Your task to perform on an android device: turn off notifications in google photos Image 0: 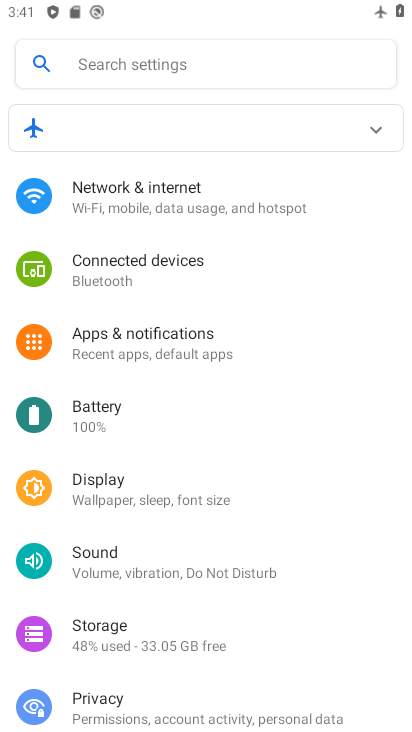
Step 0: press home button
Your task to perform on an android device: turn off notifications in google photos Image 1: 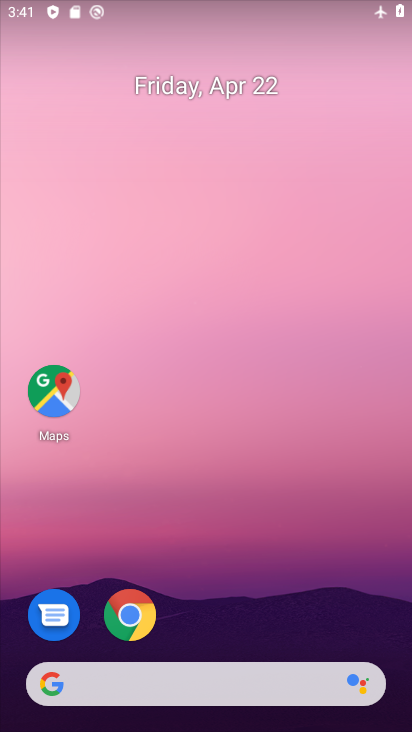
Step 1: drag from (245, 615) to (325, 329)
Your task to perform on an android device: turn off notifications in google photos Image 2: 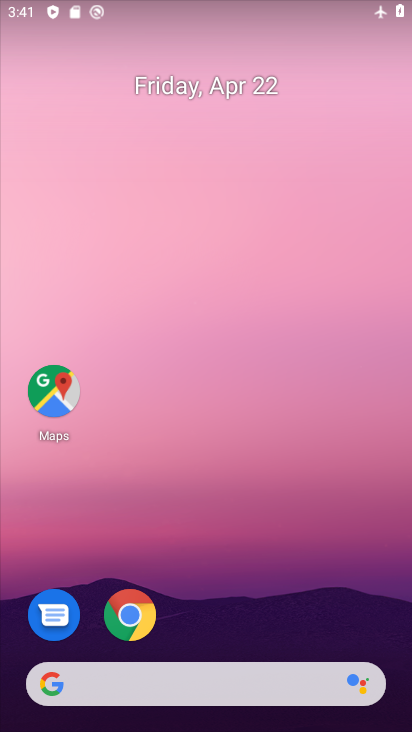
Step 2: drag from (271, 521) to (303, 314)
Your task to perform on an android device: turn off notifications in google photos Image 3: 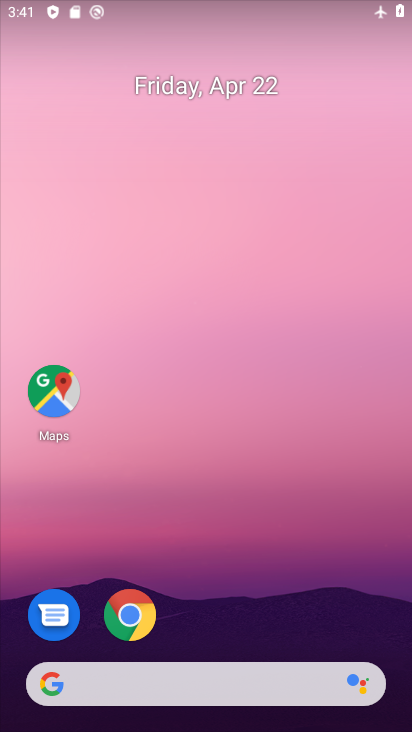
Step 3: drag from (186, 622) to (303, 155)
Your task to perform on an android device: turn off notifications in google photos Image 4: 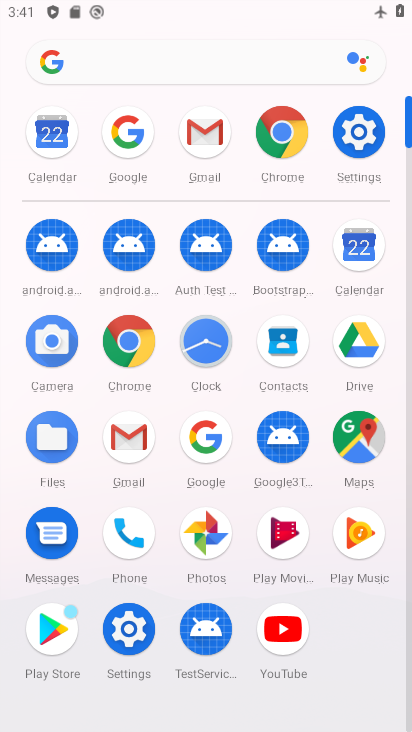
Step 4: click (219, 531)
Your task to perform on an android device: turn off notifications in google photos Image 5: 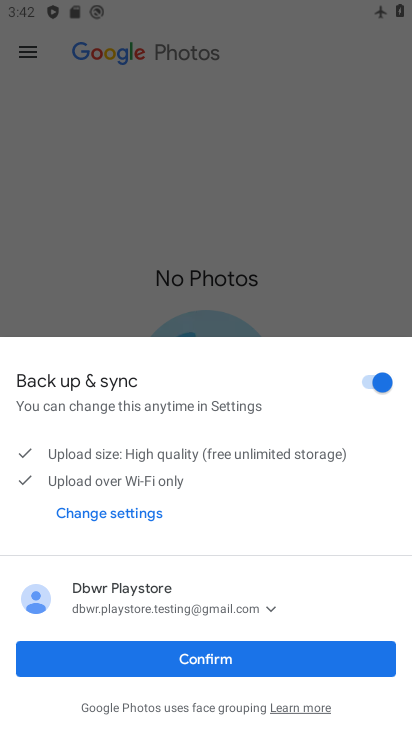
Step 5: click (221, 667)
Your task to perform on an android device: turn off notifications in google photos Image 6: 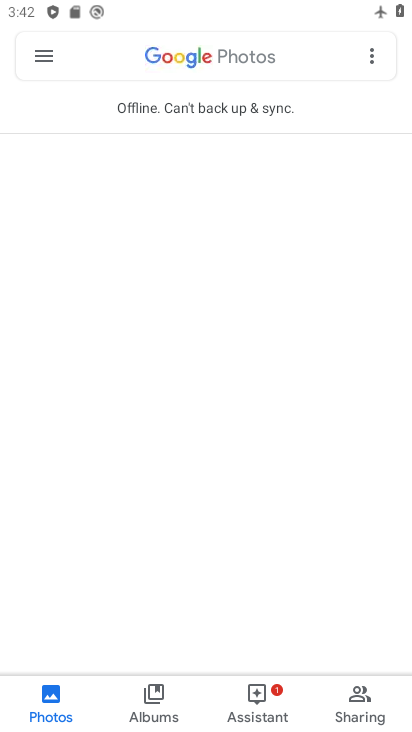
Step 6: click (52, 60)
Your task to perform on an android device: turn off notifications in google photos Image 7: 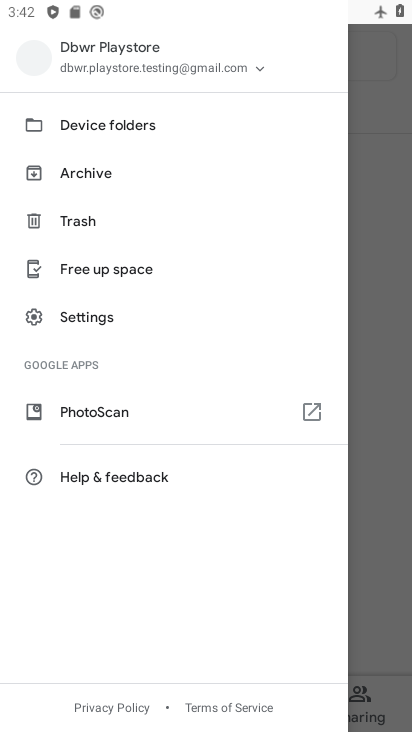
Step 7: click (111, 311)
Your task to perform on an android device: turn off notifications in google photos Image 8: 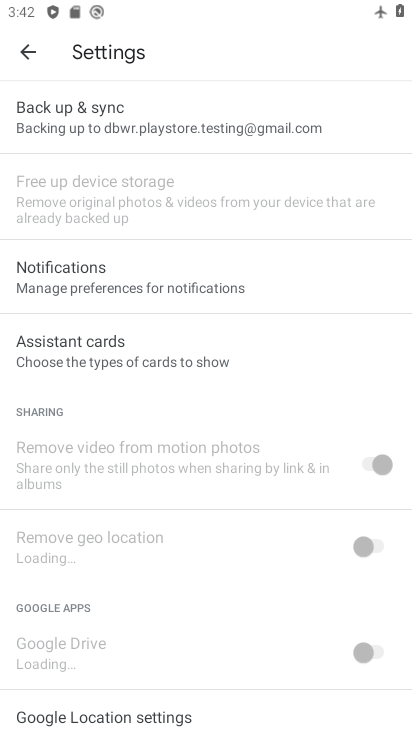
Step 8: click (58, 294)
Your task to perform on an android device: turn off notifications in google photos Image 9: 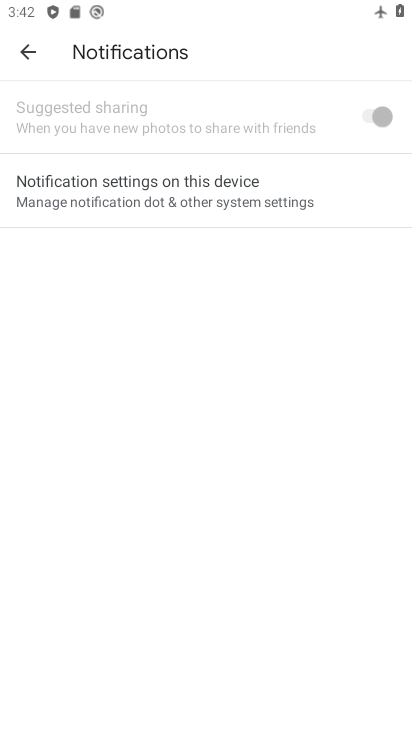
Step 9: click (79, 176)
Your task to perform on an android device: turn off notifications in google photos Image 10: 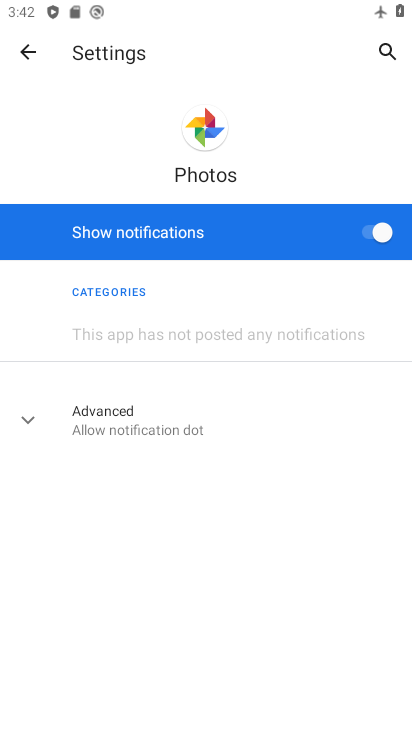
Step 10: click (369, 232)
Your task to perform on an android device: turn off notifications in google photos Image 11: 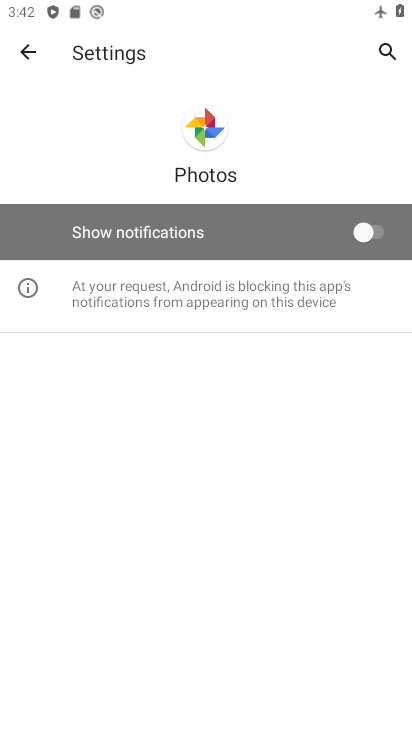
Step 11: task complete